Your task to perform on an android device: Is it going to rain today? Image 0: 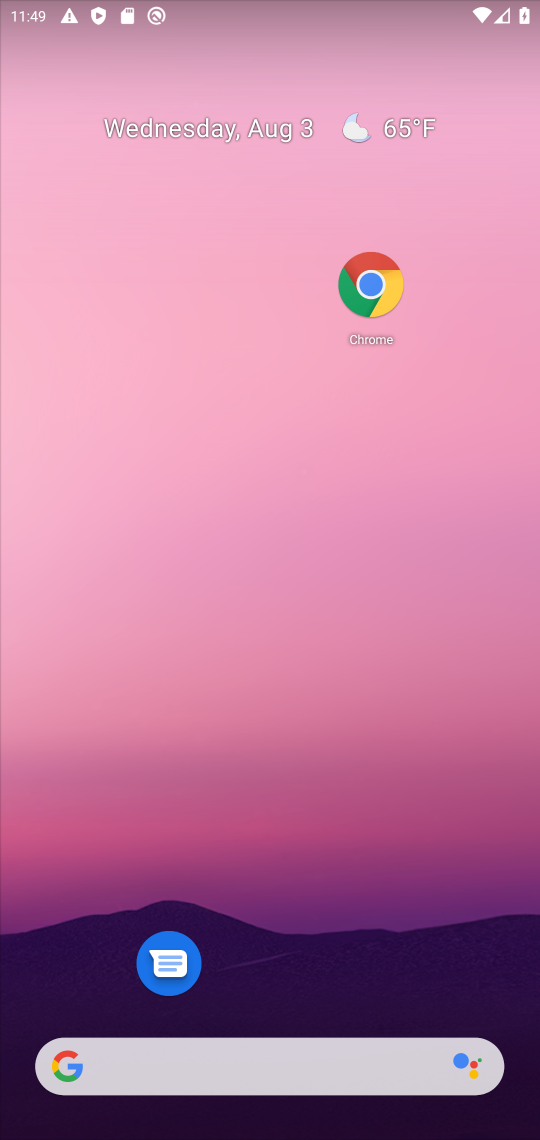
Step 0: drag from (253, 705) to (301, 178)
Your task to perform on an android device: Is it going to rain today? Image 1: 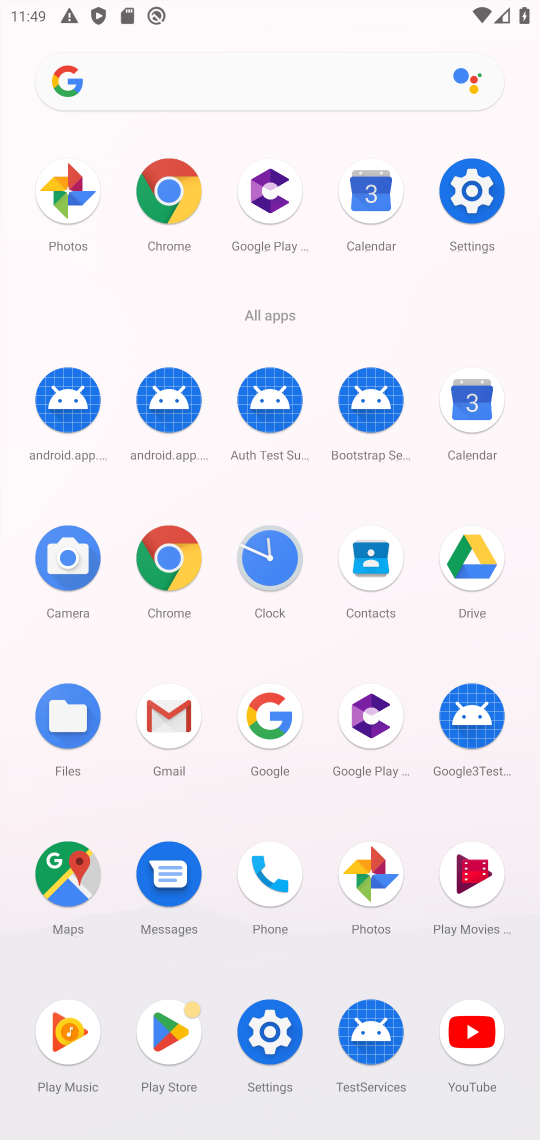
Step 1: click (150, 184)
Your task to perform on an android device: Is it going to rain today? Image 2: 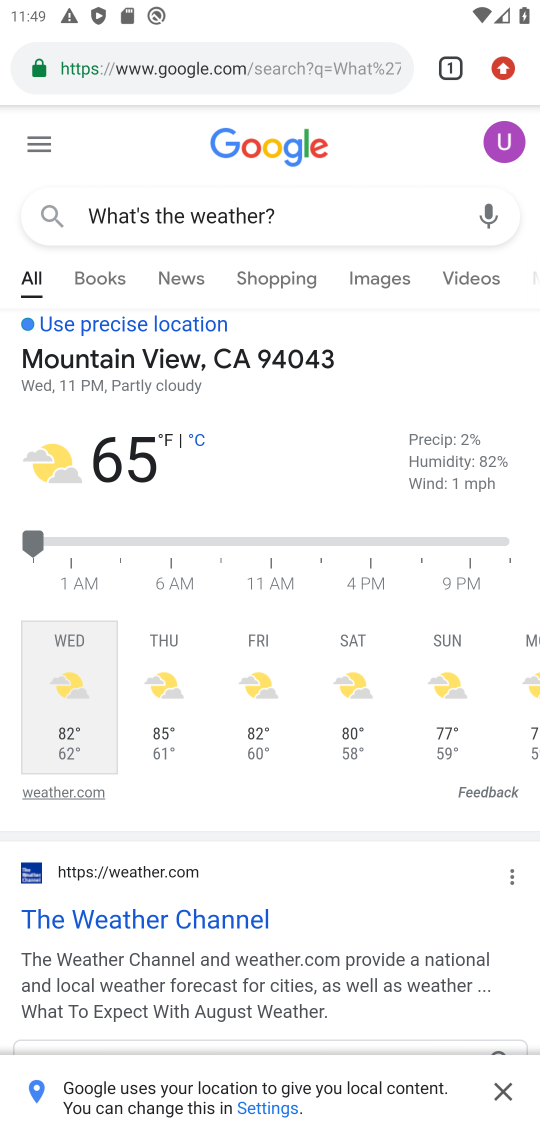
Step 2: click (515, 68)
Your task to perform on an android device: Is it going to rain today? Image 3: 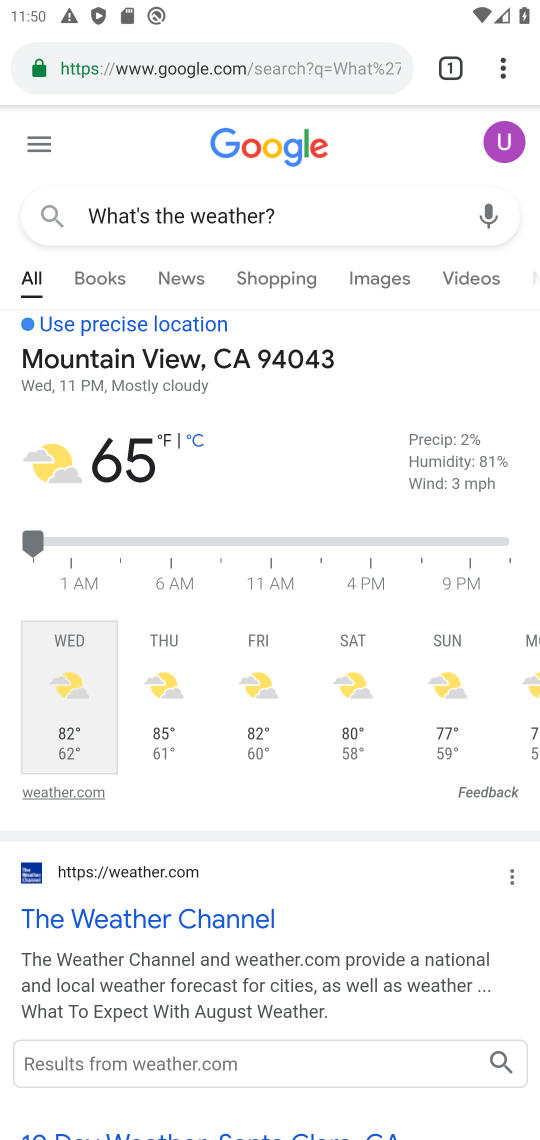
Step 3: click (498, 61)
Your task to perform on an android device: Is it going to rain today? Image 4: 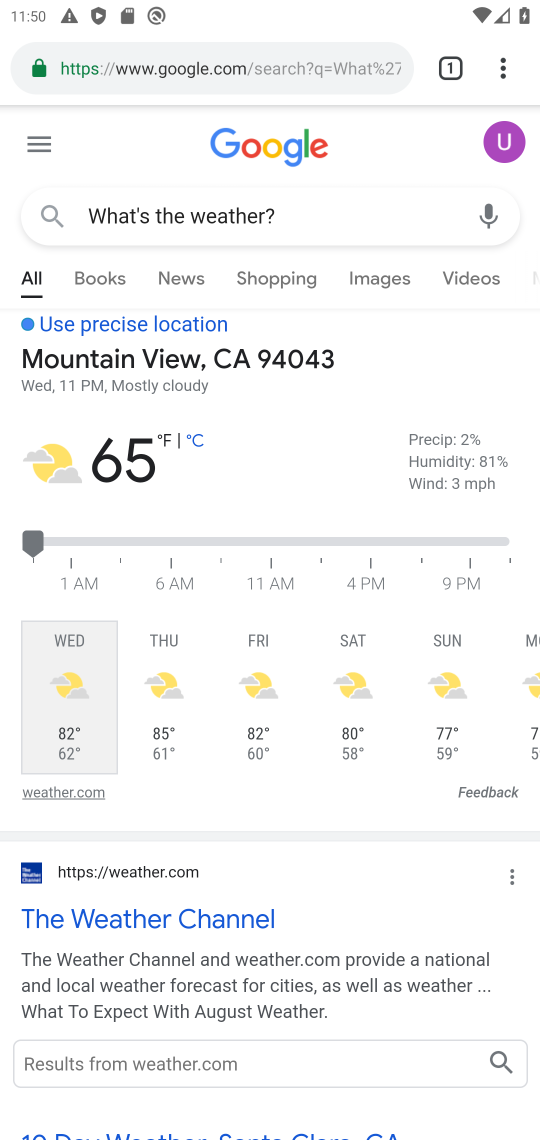
Step 4: click (498, 64)
Your task to perform on an android device: Is it going to rain today? Image 5: 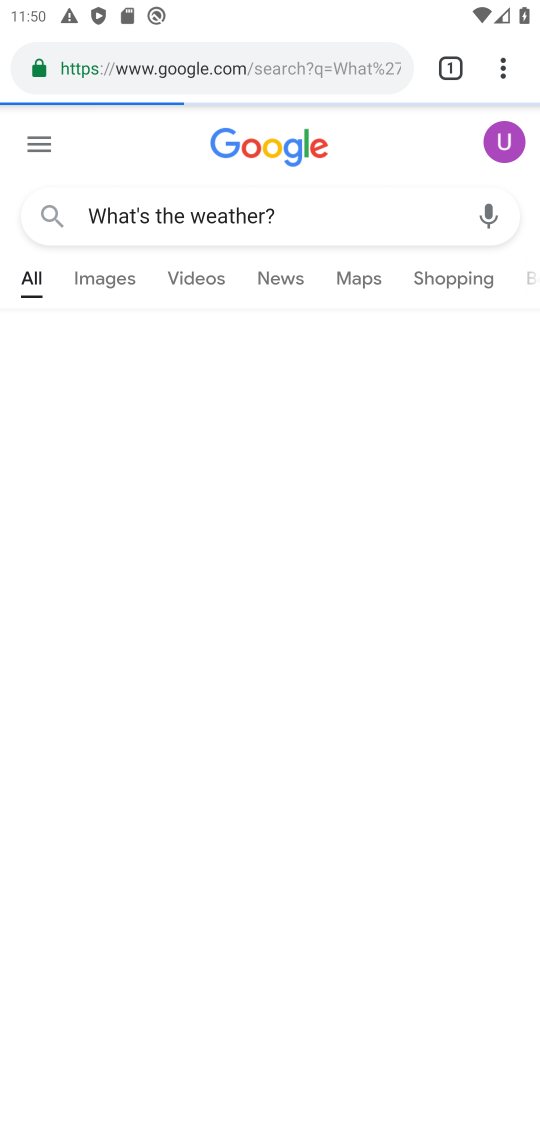
Step 5: click (498, 64)
Your task to perform on an android device: Is it going to rain today? Image 6: 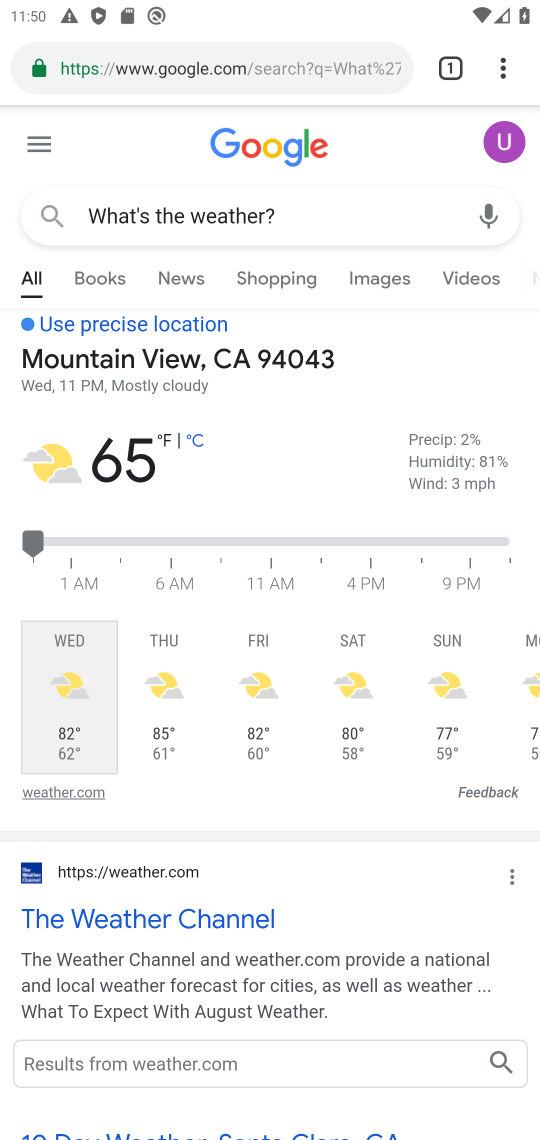
Step 6: click (505, 51)
Your task to perform on an android device: Is it going to rain today? Image 7: 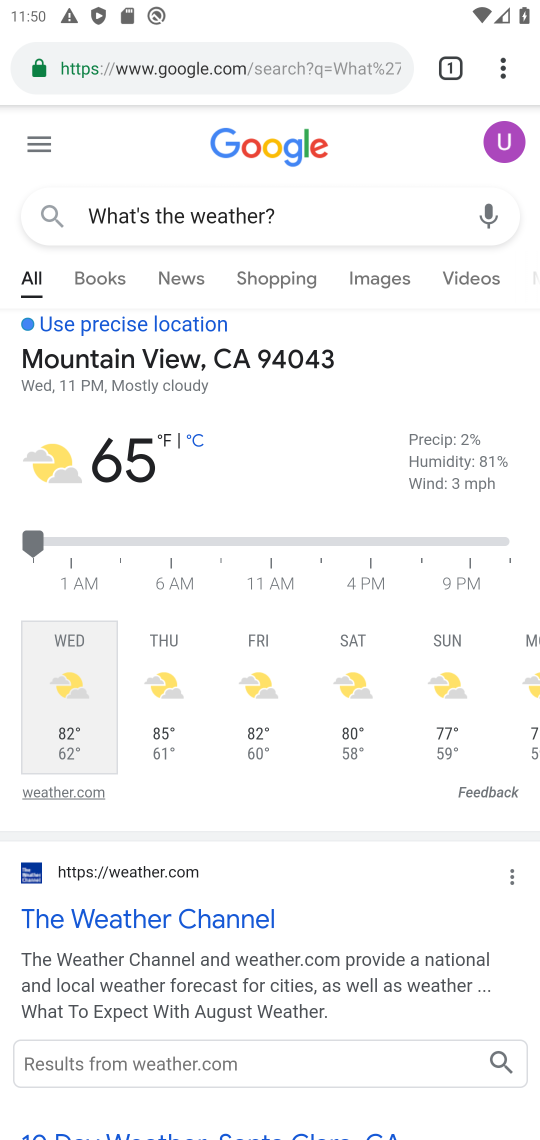
Step 7: click (505, 62)
Your task to perform on an android device: Is it going to rain today? Image 8: 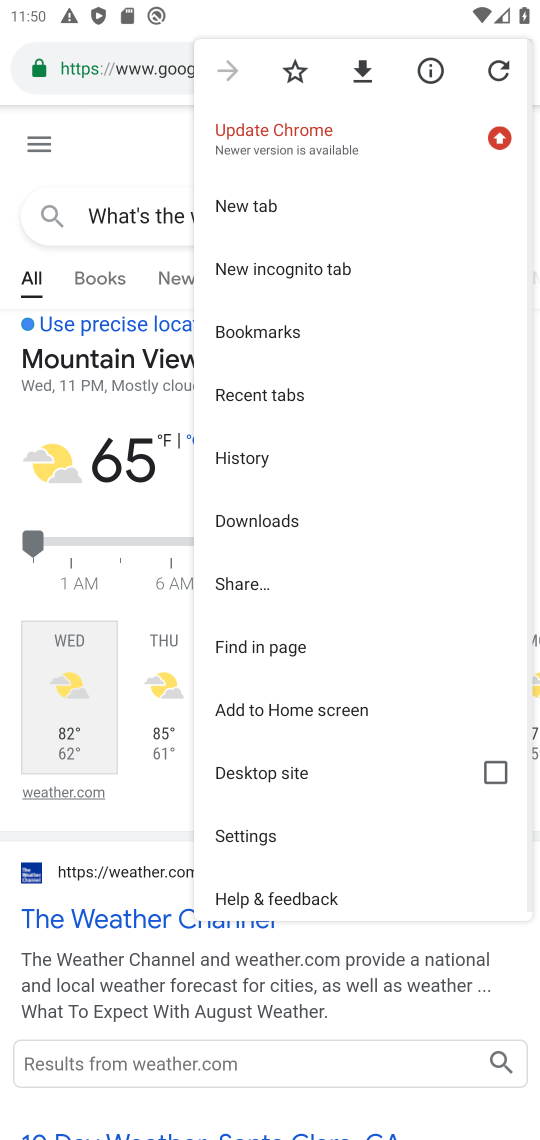
Step 8: click (255, 218)
Your task to perform on an android device: Is it going to rain today? Image 9: 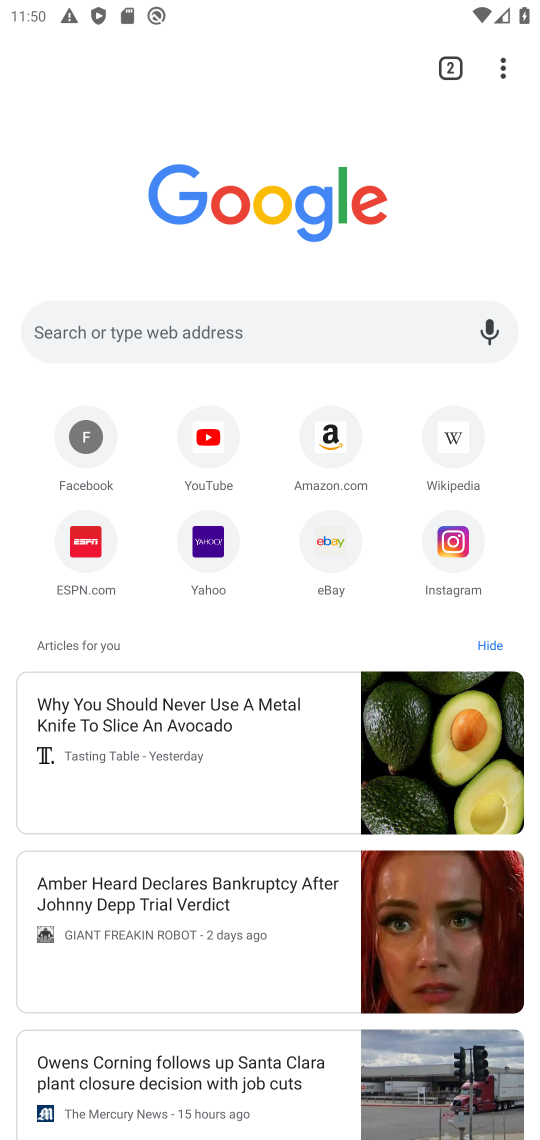
Step 9: click (260, 310)
Your task to perform on an android device: Is it going to rain today? Image 10: 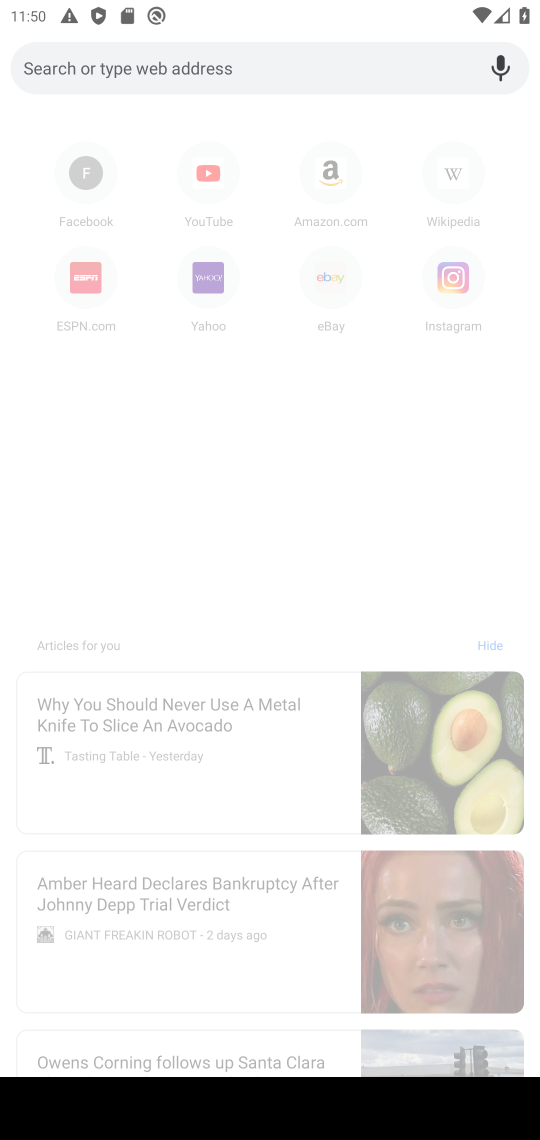
Step 10: type "Is it going to rain today? "
Your task to perform on an android device: Is it going to rain today? Image 11: 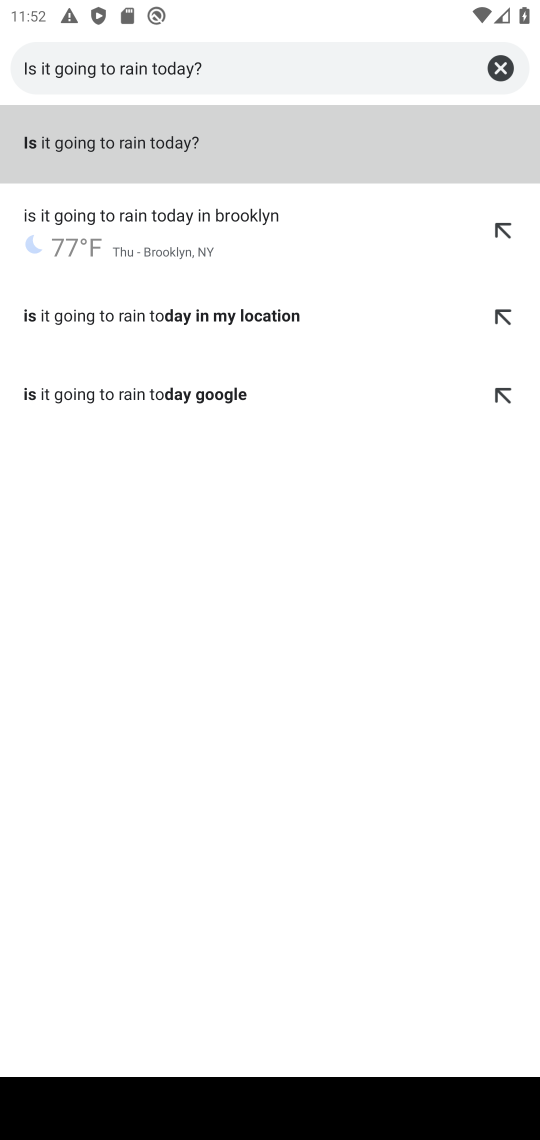
Step 11: click (164, 151)
Your task to perform on an android device: Is it going to rain today? Image 12: 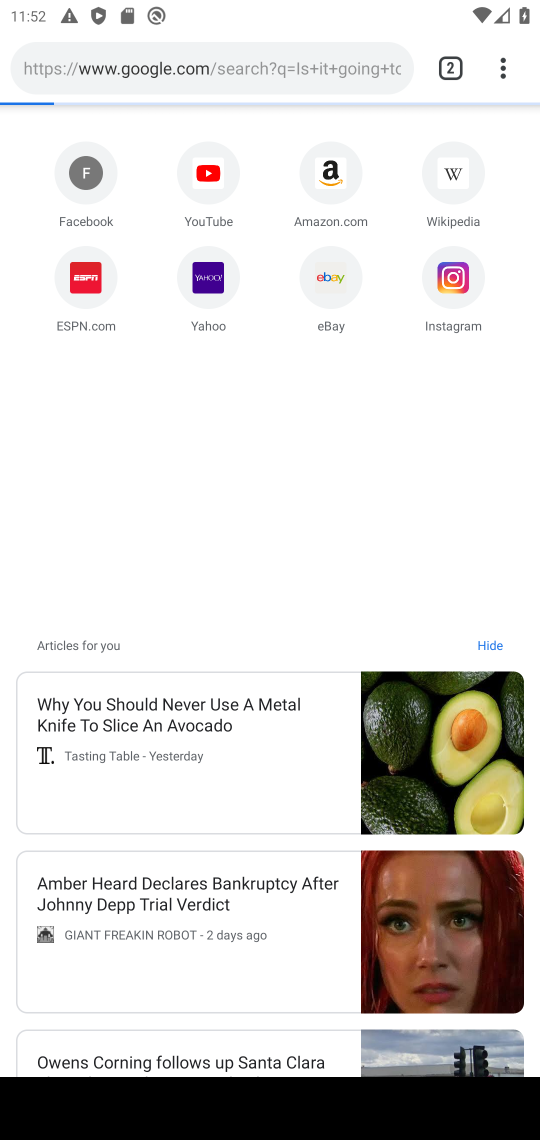
Step 12: task complete